Your task to perform on an android device: turn on showing notifications on the lock screen Image 0: 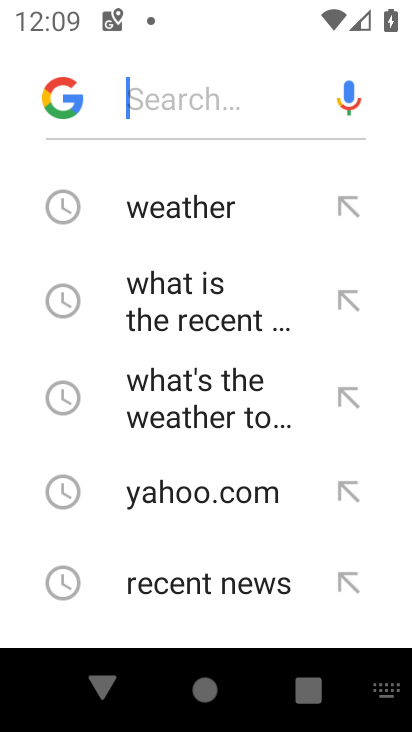
Step 0: press home button
Your task to perform on an android device: turn on showing notifications on the lock screen Image 1: 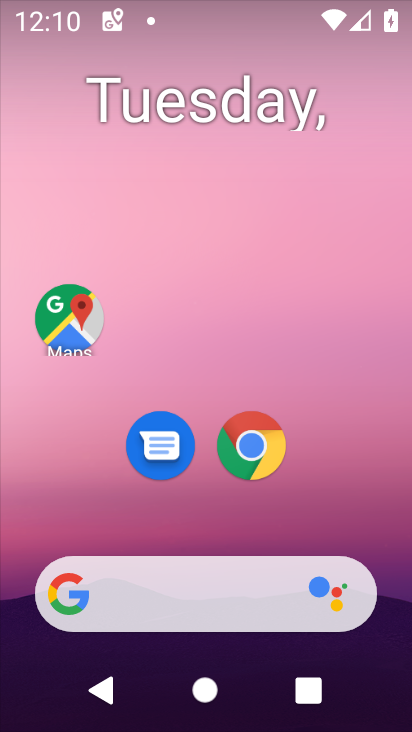
Step 1: drag from (339, 541) to (303, 86)
Your task to perform on an android device: turn on showing notifications on the lock screen Image 2: 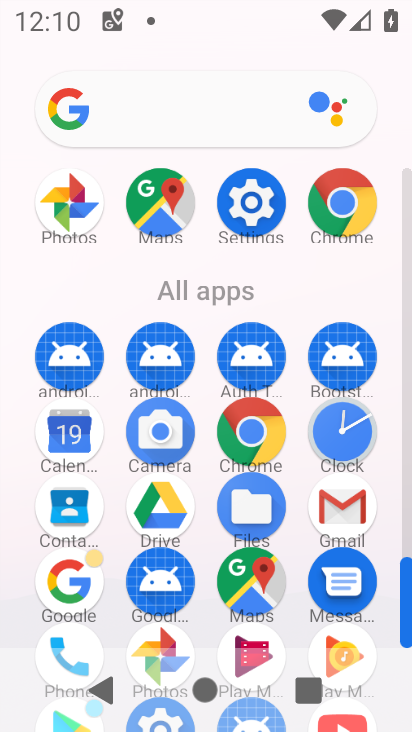
Step 2: click (240, 199)
Your task to perform on an android device: turn on showing notifications on the lock screen Image 3: 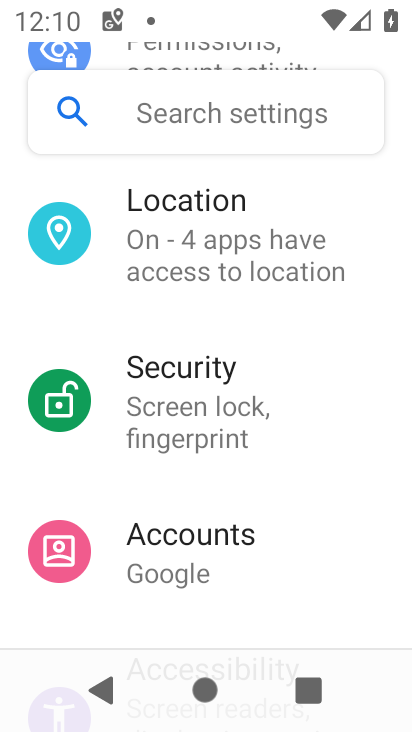
Step 3: drag from (259, 182) to (309, 632)
Your task to perform on an android device: turn on showing notifications on the lock screen Image 4: 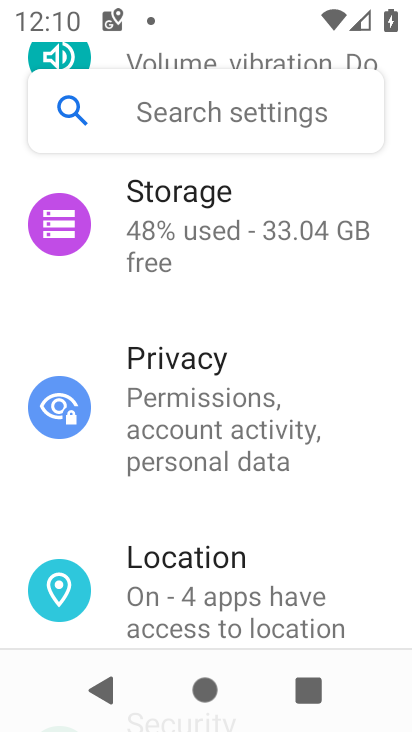
Step 4: drag from (249, 188) to (242, 624)
Your task to perform on an android device: turn on showing notifications on the lock screen Image 5: 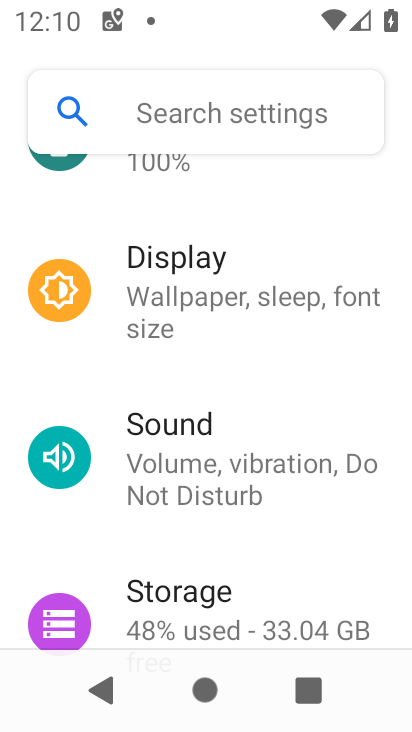
Step 5: drag from (237, 237) to (249, 567)
Your task to perform on an android device: turn on showing notifications on the lock screen Image 6: 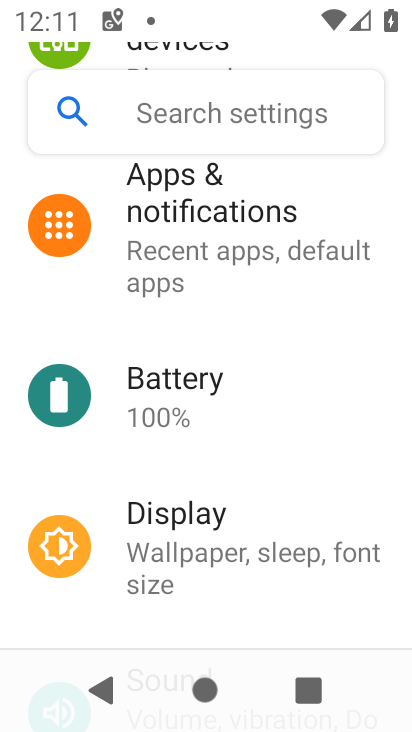
Step 6: click (242, 213)
Your task to perform on an android device: turn on showing notifications on the lock screen Image 7: 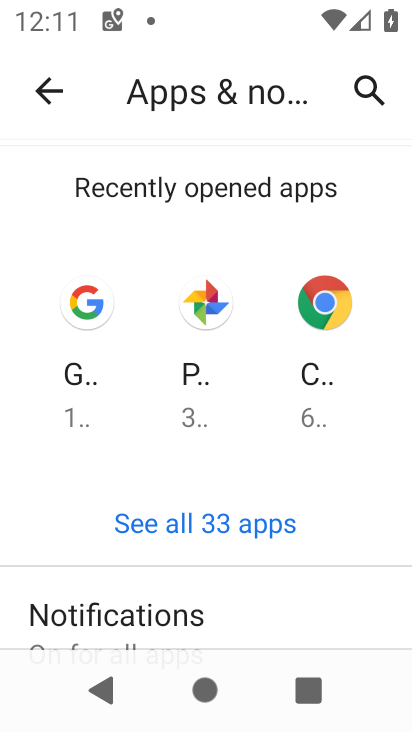
Step 7: click (159, 610)
Your task to perform on an android device: turn on showing notifications on the lock screen Image 8: 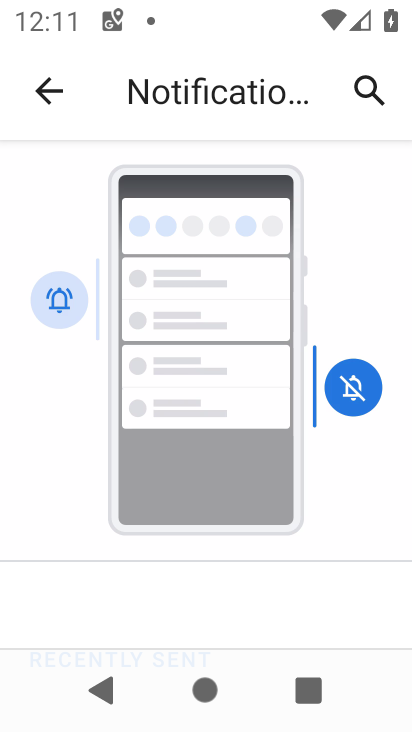
Step 8: drag from (266, 508) to (263, 218)
Your task to perform on an android device: turn on showing notifications on the lock screen Image 9: 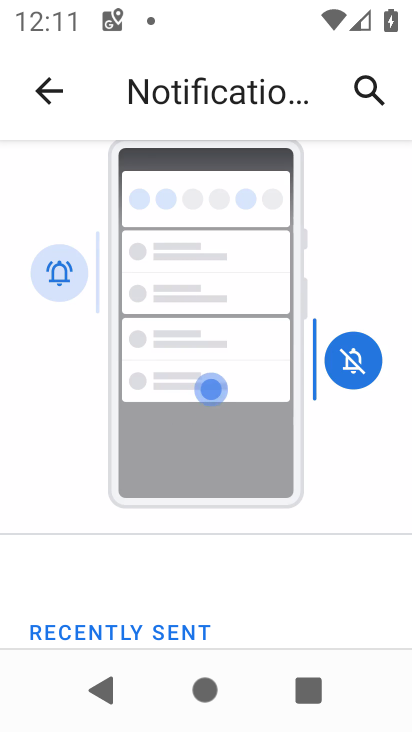
Step 9: drag from (259, 591) to (243, 189)
Your task to perform on an android device: turn on showing notifications on the lock screen Image 10: 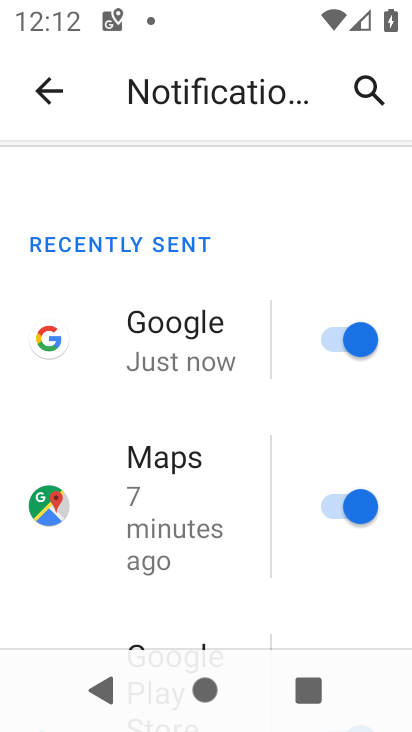
Step 10: drag from (233, 580) to (213, 197)
Your task to perform on an android device: turn on showing notifications on the lock screen Image 11: 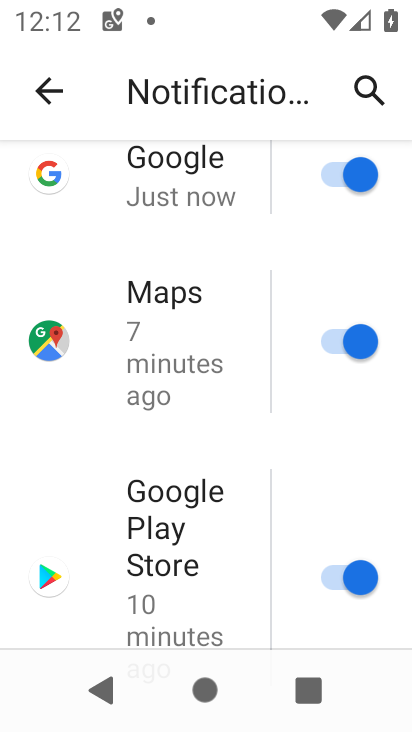
Step 11: drag from (208, 466) to (202, 158)
Your task to perform on an android device: turn on showing notifications on the lock screen Image 12: 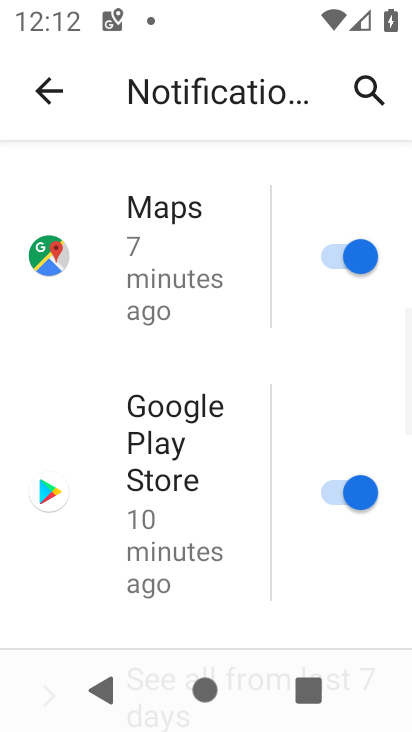
Step 12: drag from (202, 525) to (266, 144)
Your task to perform on an android device: turn on showing notifications on the lock screen Image 13: 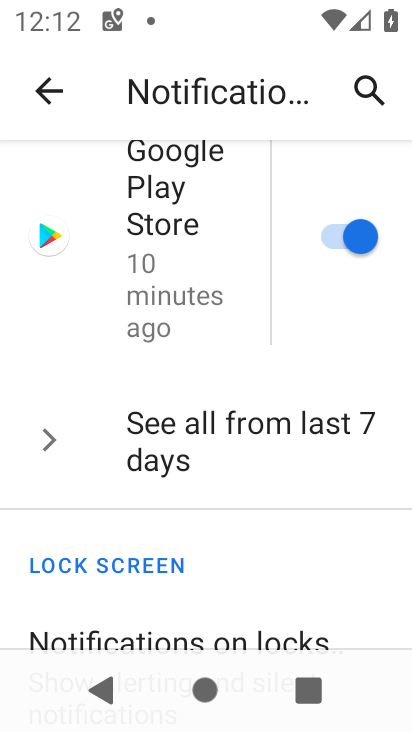
Step 13: drag from (202, 546) to (185, 184)
Your task to perform on an android device: turn on showing notifications on the lock screen Image 14: 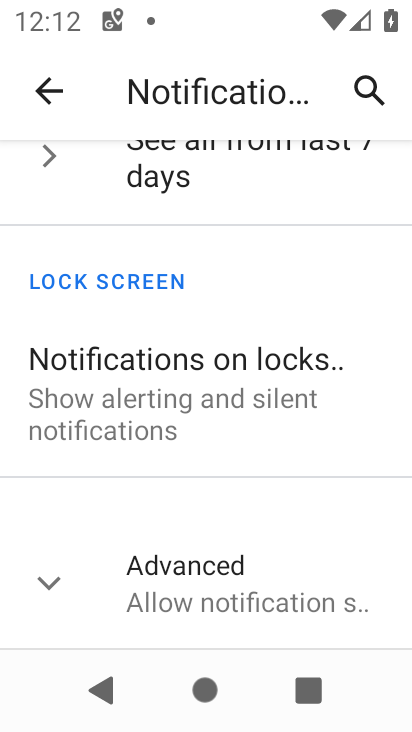
Step 14: drag from (194, 481) to (236, 225)
Your task to perform on an android device: turn on showing notifications on the lock screen Image 15: 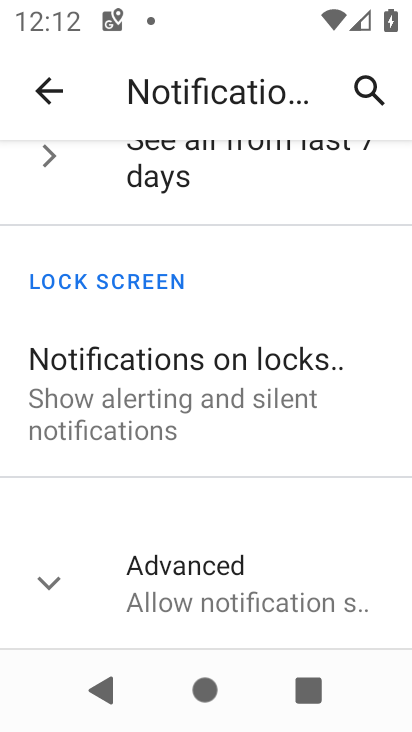
Step 15: click (259, 384)
Your task to perform on an android device: turn on showing notifications on the lock screen Image 16: 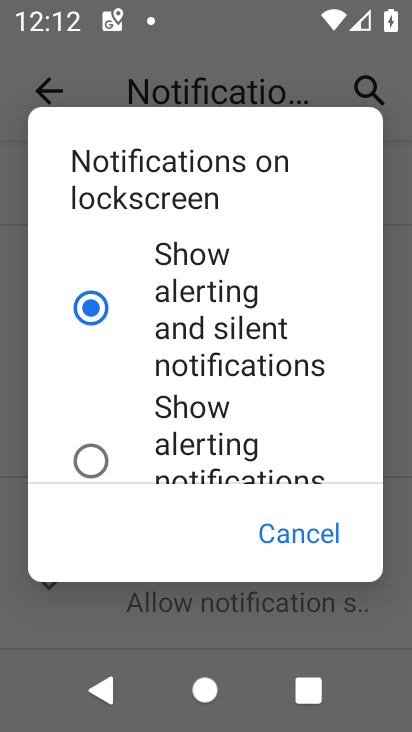
Step 16: click (219, 442)
Your task to perform on an android device: turn on showing notifications on the lock screen Image 17: 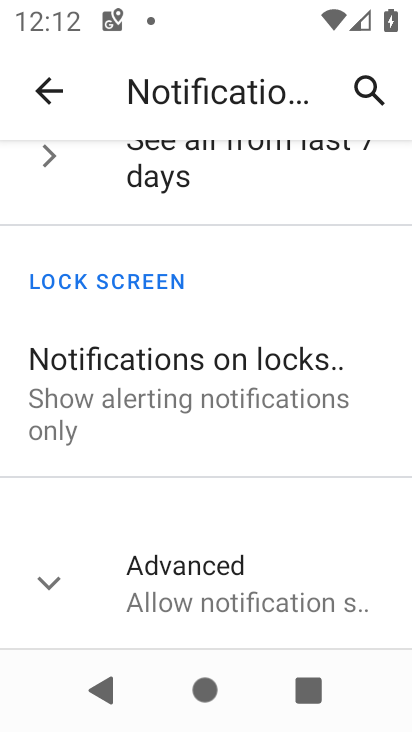
Step 17: task complete